Your task to perform on an android device: check out phone information Image 0: 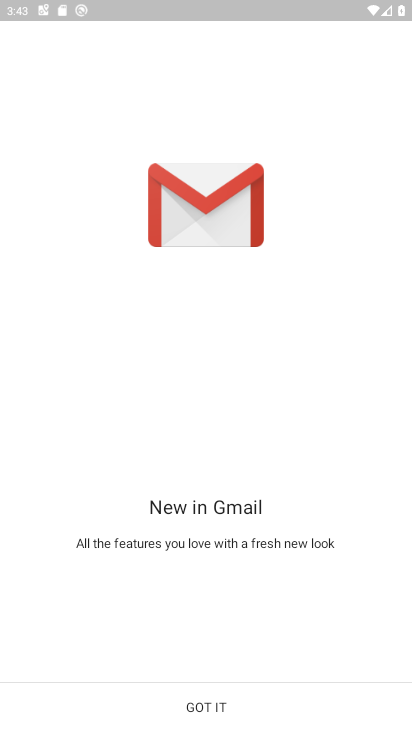
Step 0: press home button
Your task to perform on an android device: check out phone information Image 1: 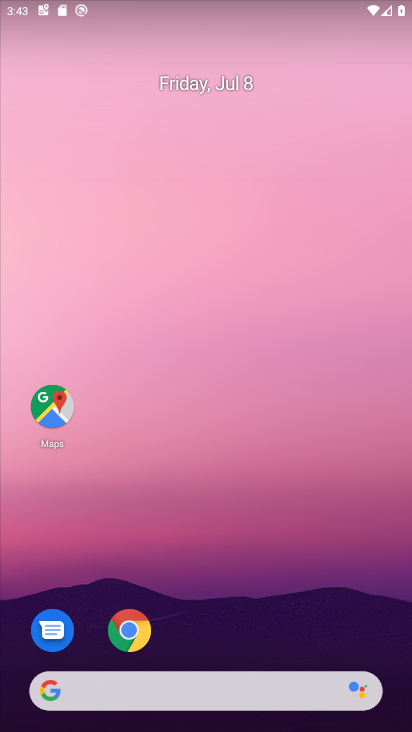
Step 1: drag from (285, 557) to (291, 52)
Your task to perform on an android device: check out phone information Image 2: 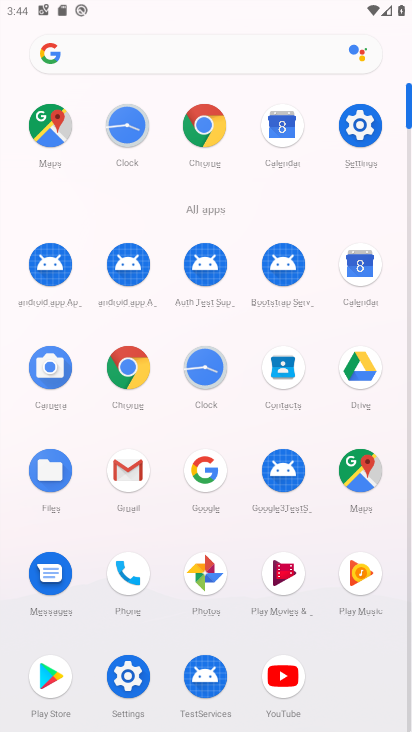
Step 2: click (134, 568)
Your task to perform on an android device: check out phone information Image 3: 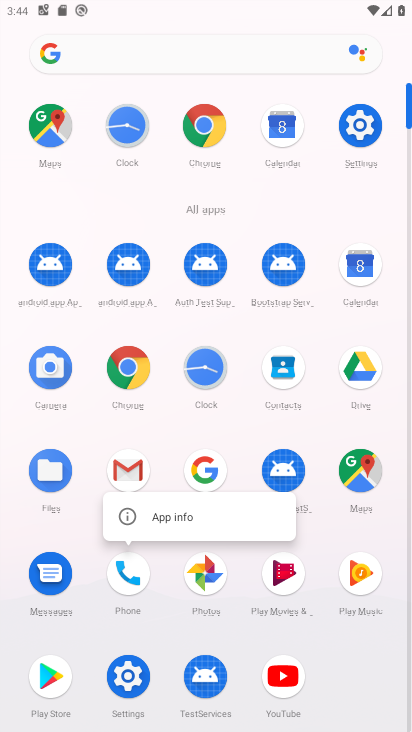
Step 3: click (186, 518)
Your task to perform on an android device: check out phone information Image 4: 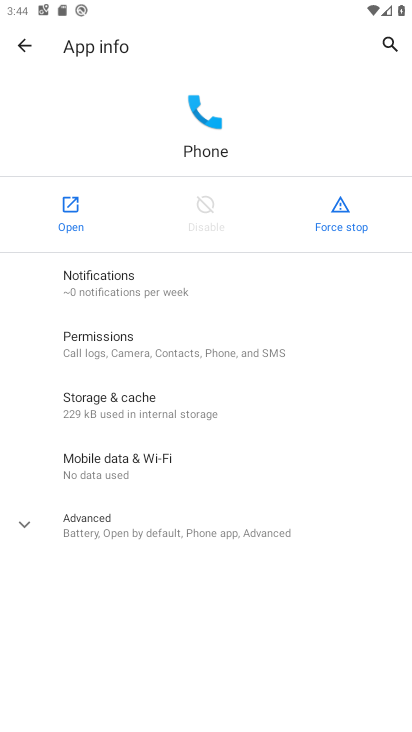
Step 4: click (138, 524)
Your task to perform on an android device: check out phone information Image 5: 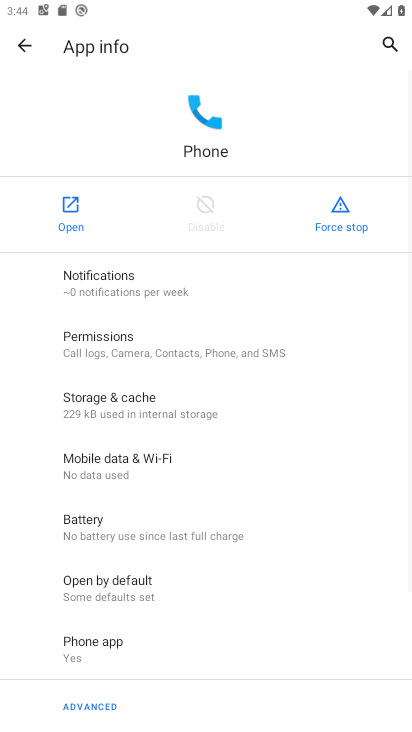
Step 5: task complete